Your task to perform on an android device: Open my contact list Image 0: 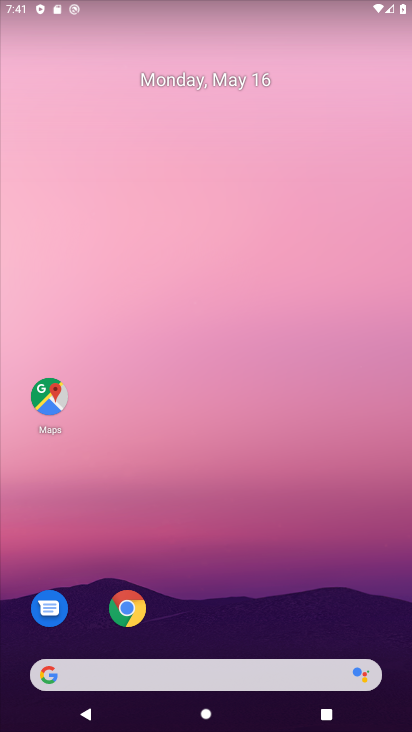
Step 0: drag from (244, 597) to (176, 164)
Your task to perform on an android device: Open my contact list Image 1: 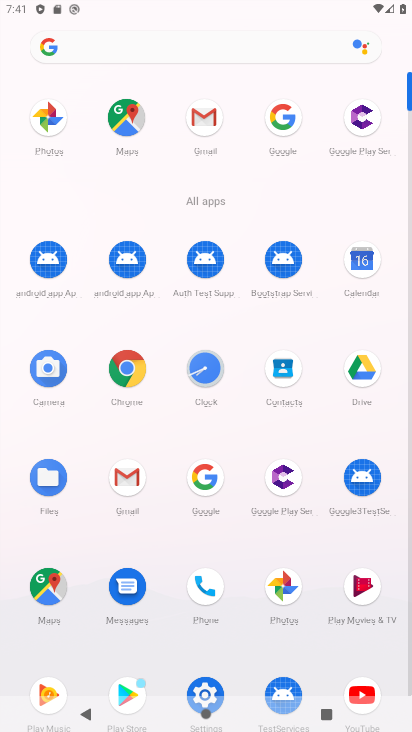
Step 1: click (283, 368)
Your task to perform on an android device: Open my contact list Image 2: 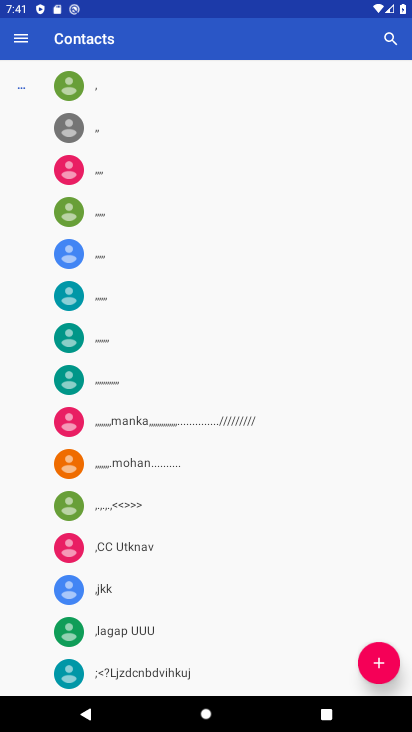
Step 2: task complete